Your task to perform on an android device: clear history in the chrome app Image 0: 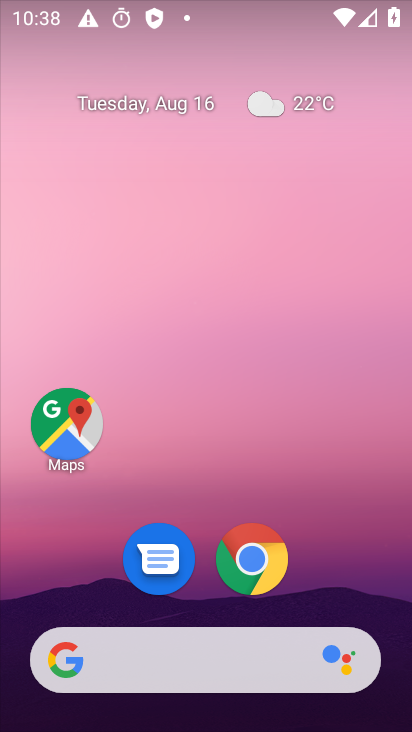
Step 0: click (253, 556)
Your task to perform on an android device: clear history in the chrome app Image 1: 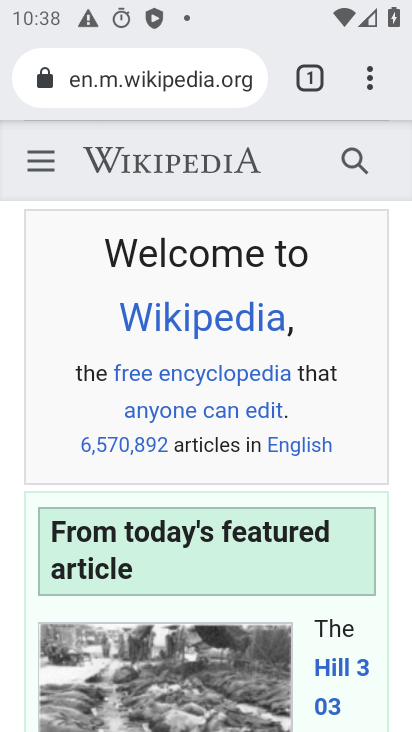
Step 1: click (372, 84)
Your task to perform on an android device: clear history in the chrome app Image 2: 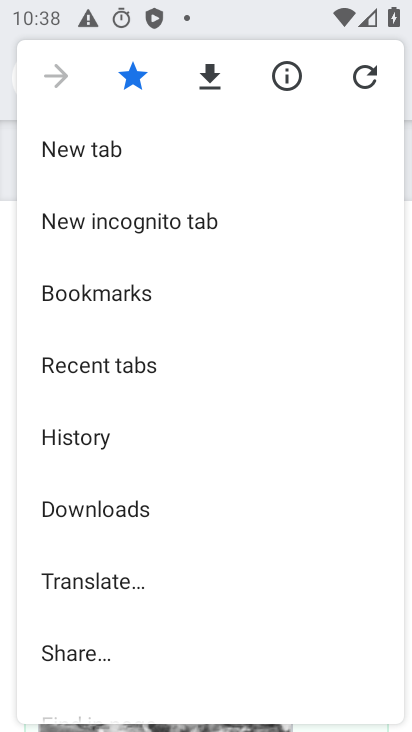
Step 2: click (94, 442)
Your task to perform on an android device: clear history in the chrome app Image 3: 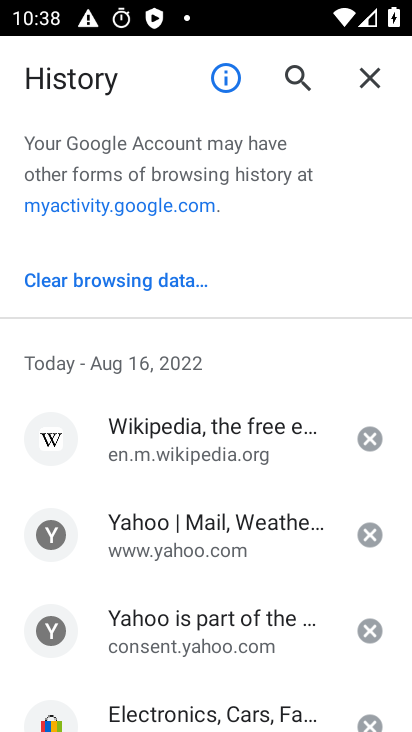
Step 3: click (120, 288)
Your task to perform on an android device: clear history in the chrome app Image 4: 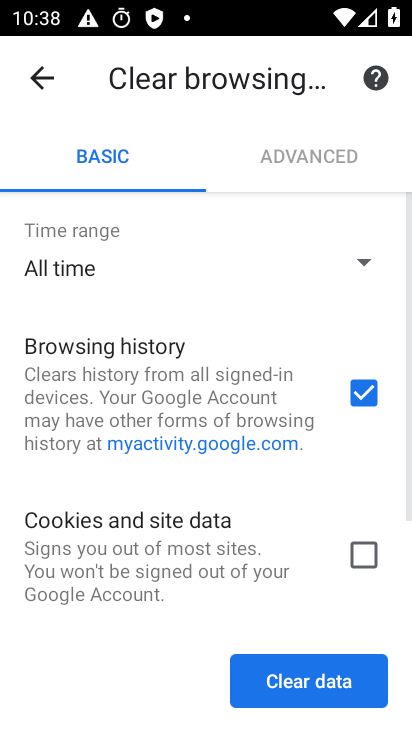
Step 4: click (360, 558)
Your task to perform on an android device: clear history in the chrome app Image 5: 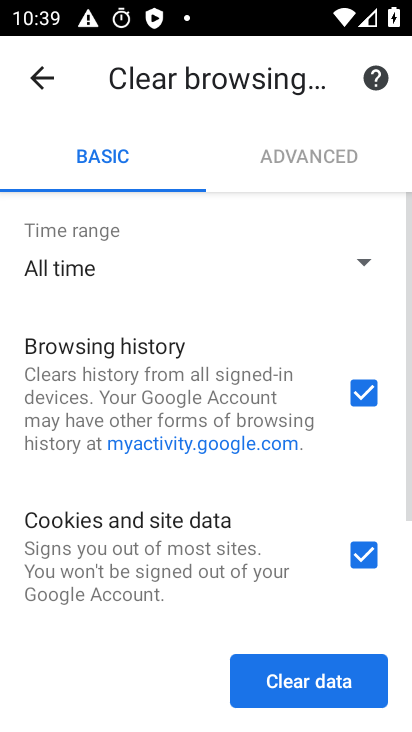
Step 5: drag from (283, 399) to (317, 278)
Your task to perform on an android device: clear history in the chrome app Image 6: 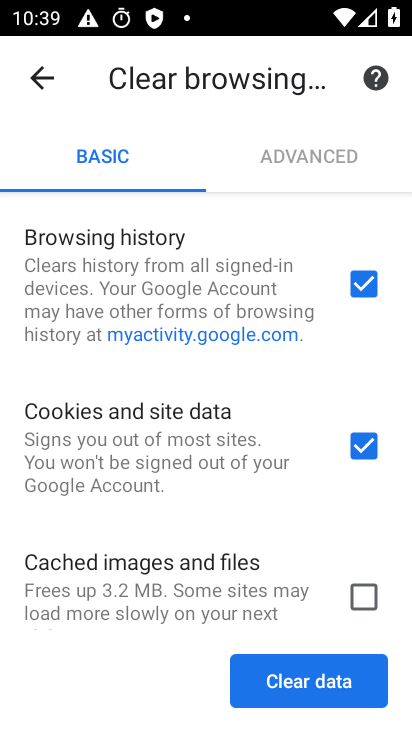
Step 6: click (378, 603)
Your task to perform on an android device: clear history in the chrome app Image 7: 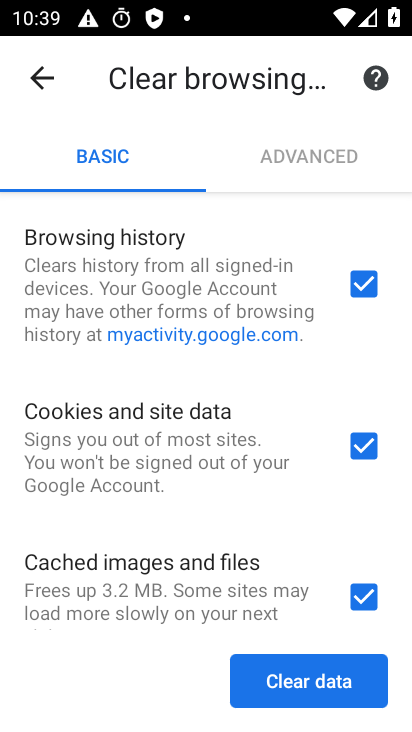
Step 7: click (305, 675)
Your task to perform on an android device: clear history in the chrome app Image 8: 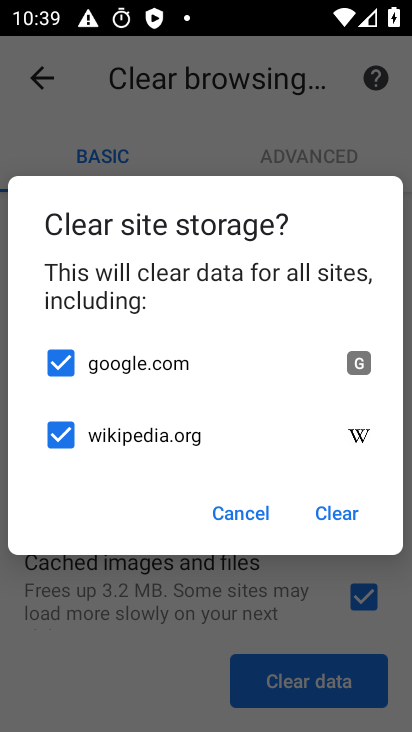
Step 8: click (340, 514)
Your task to perform on an android device: clear history in the chrome app Image 9: 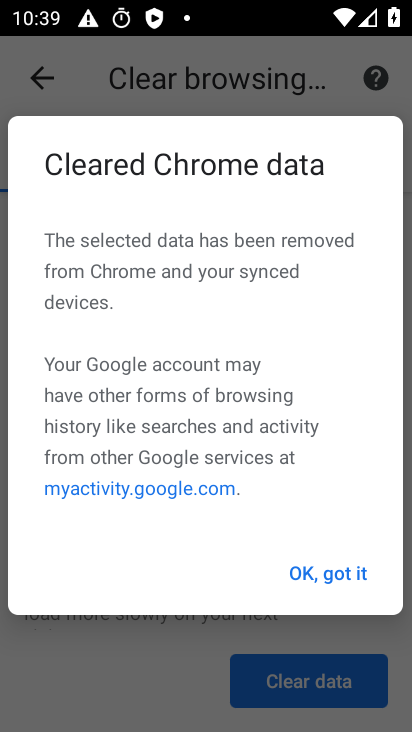
Step 9: click (338, 576)
Your task to perform on an android device: clear history in the chrome app Image 10: 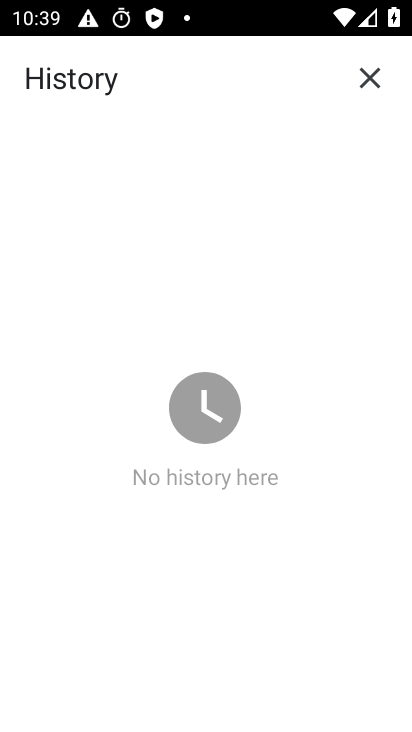
Step 10: task complete